Your task to perform on an android device: turn on the 12-hour format for clock Image 0: 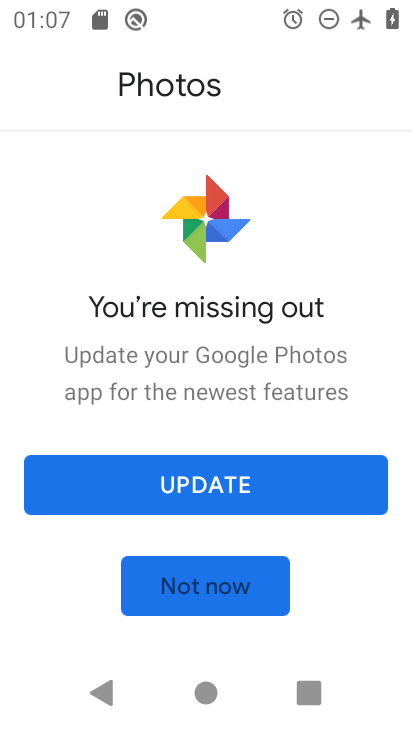
Step 0: press home button
Your task to perform on an android device: turn on the 12-hour format for clock Image 1: 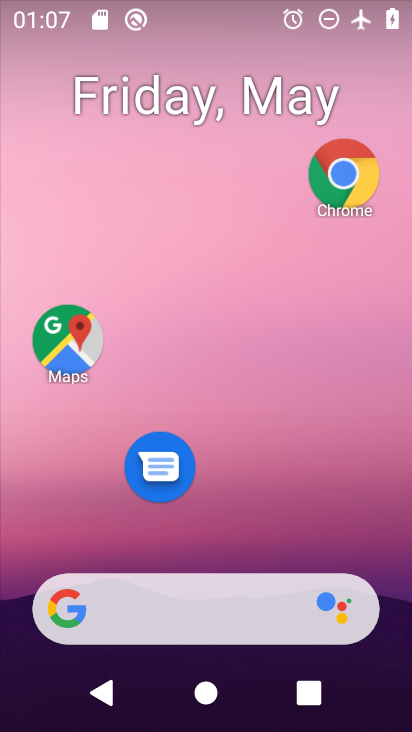
Step 1: drag from (312, 534) to (302, 207)
Your task to perform on an android device: turn on the 12-hour format for clock Image 2: 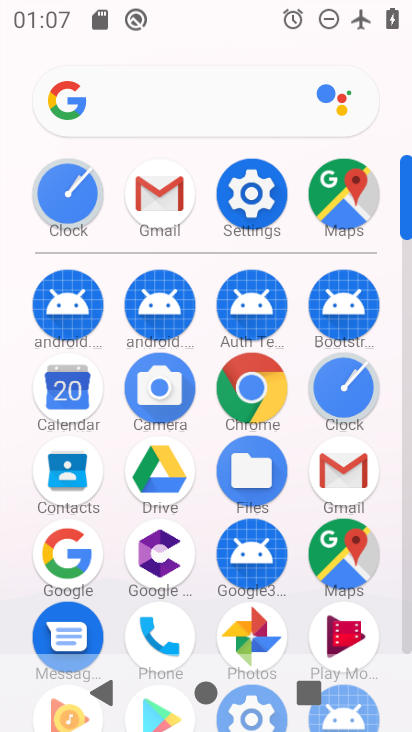
Step 2: click (333, 385)
Your task to perform on an android device: turn on the 12-hour format for clock Image 3: 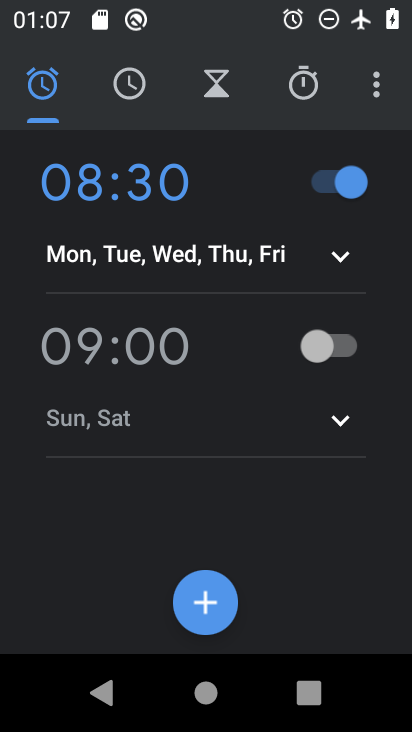
Step 3: click (382, 90)
Your task to perform on an android device: turn on the 12-hour format for clock Image 4: 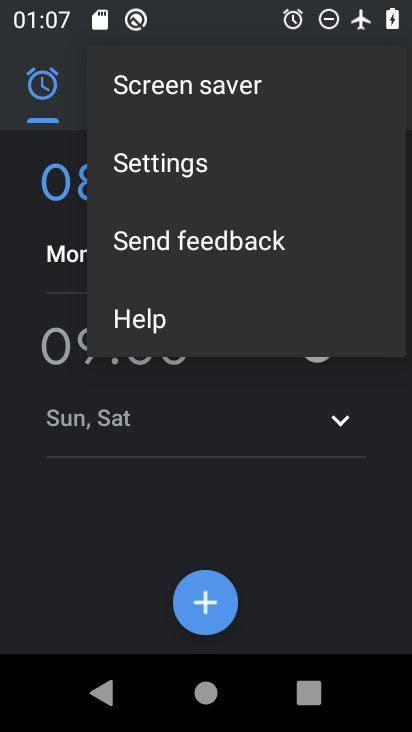
Step 4: click (152, 176)
Your task to perform on an android device: turn on the 12-hour format for clock Image 5: 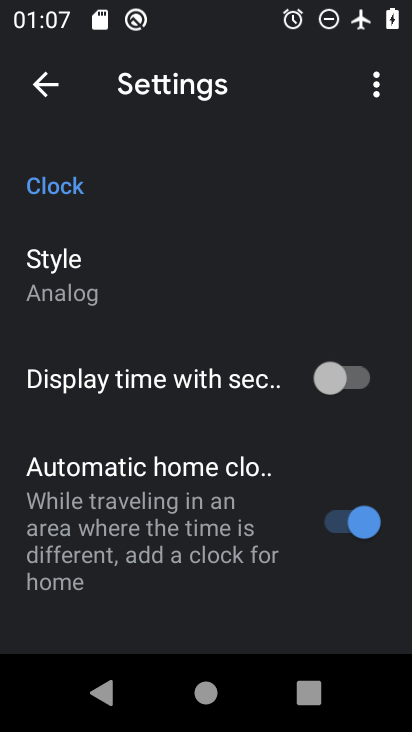
Step 5: drag from (250, 512) to (350, 95)
Your task to perform on an android device: turn on the 12-hour format for clock Image 6: 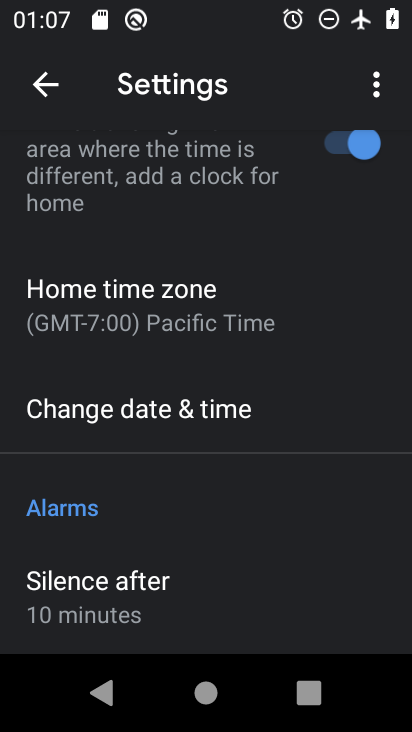
Step 6: click (195, 380)
Your task to perform on an android device: turn on the 12-hour format for clock Image 7: 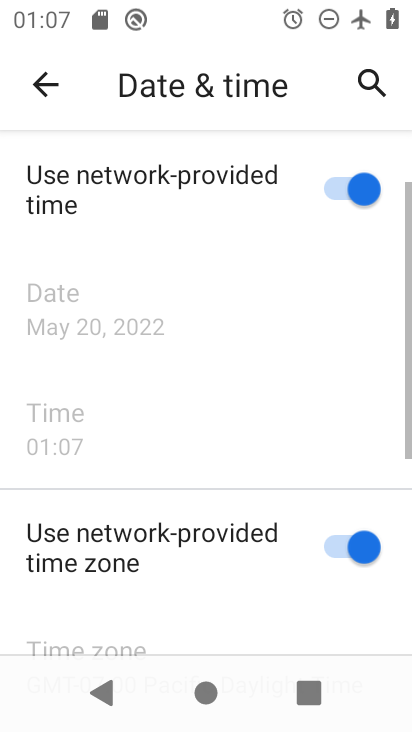
Step 7: task complete